Your task to perform on an android device: toggle translation in the chrome app Image 0: 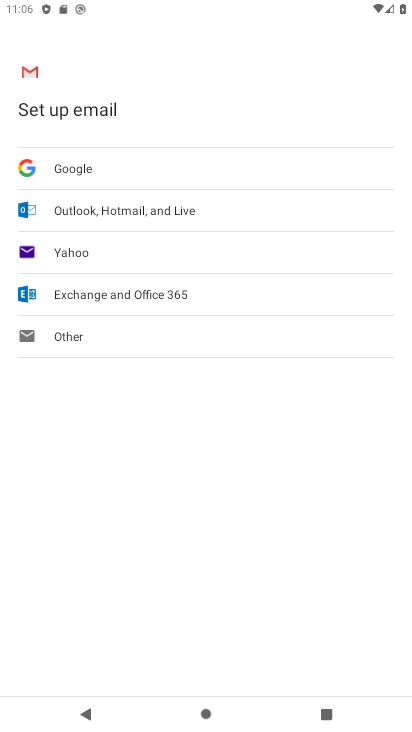
Step 0: press home button
Your task to perform on an android device: toggle translation in the chrome app Image 1: 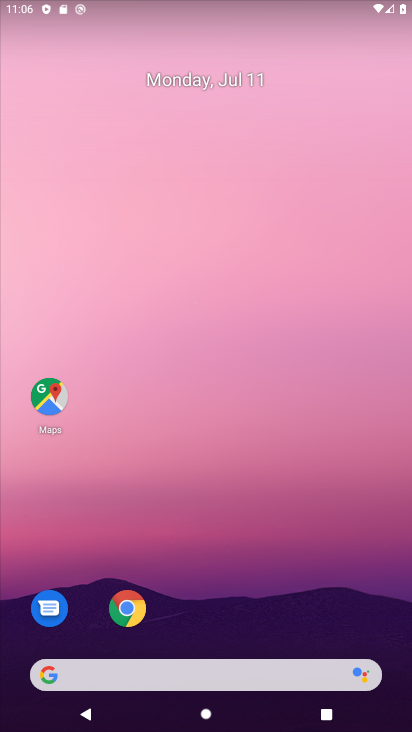
Step 1: click (122, 608)
Your task to perform on an android device: toggle translation in the chrome app Image 2: 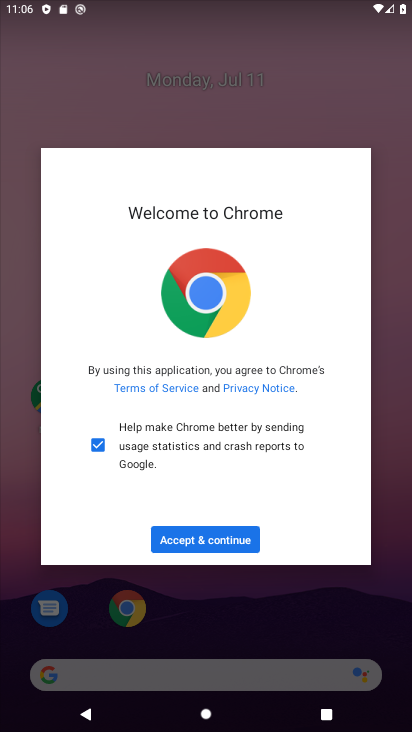
Step 2: click (198, 543)
Your task to perform on an android device: toggle translation in the chrome app Image 3: 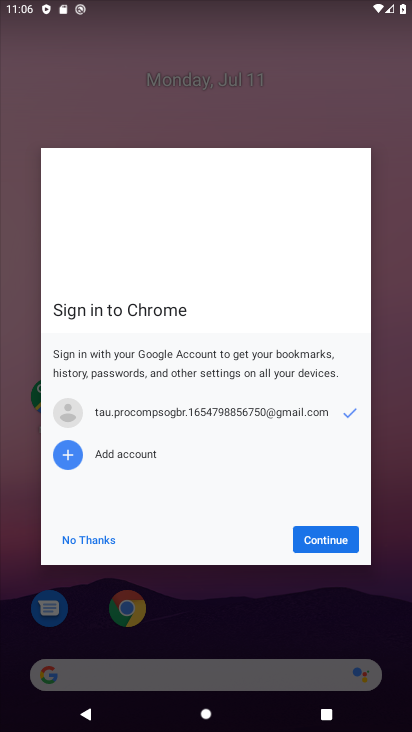
Step 3: click (314, 543)
Your task to perform on an android device: toggle translation in the chrome app Image 4: 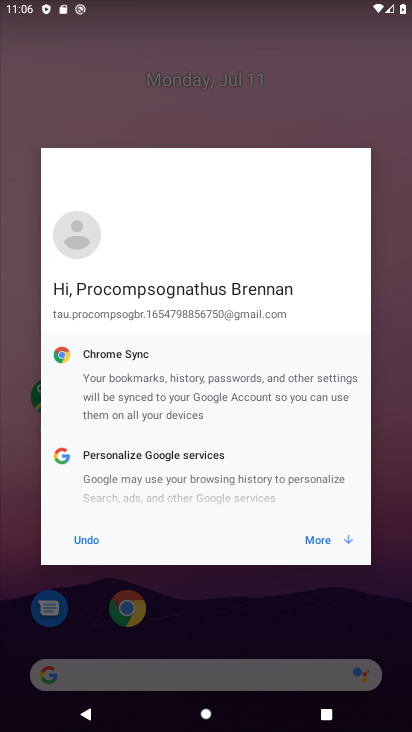
Step 4: click (314, 543)
Your task to perform on an android device: toggle translation in the chrome app Image 5: 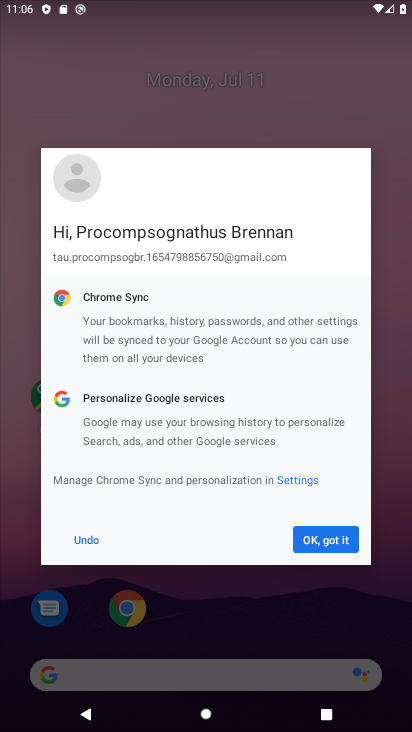
Step 5: click (314, 543)
Your task to perform on an android device: toggle translation in the chrome app Image 6: 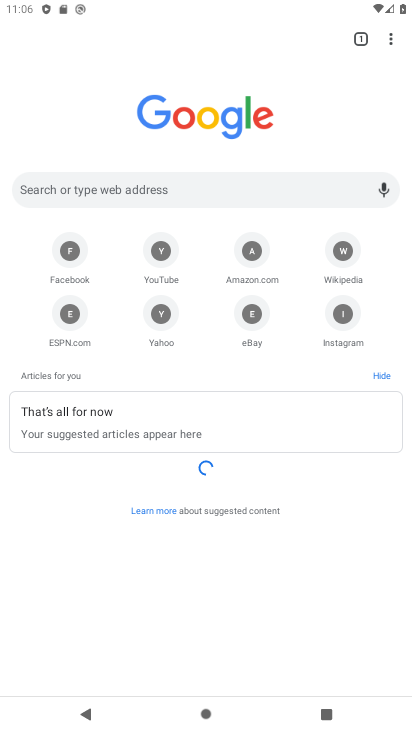
Step 6: click (392, 42)
Your task to perform on an android device: toggle translation in the chrome app Image 7: 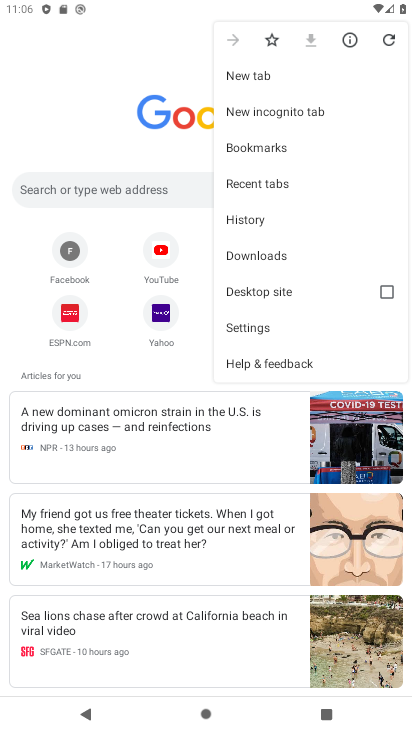
Step 7: click (266, 322)
Your task to perform on an android device: toggle translation in the chrome app Image 8: 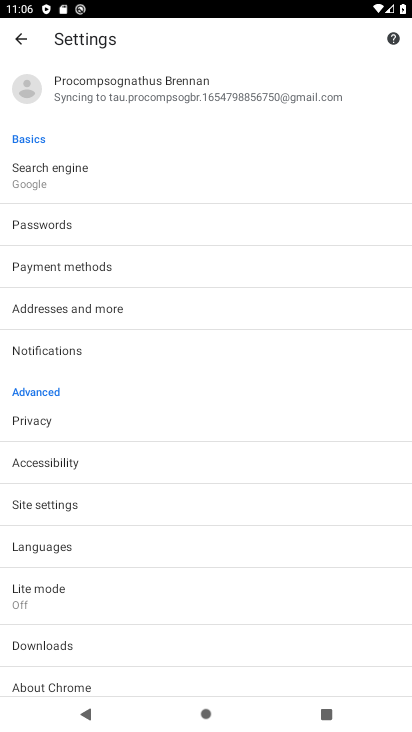
Step 8: click (64, 535)
Your task to perform on an android device: toggle translation in the chrome app Image 9: 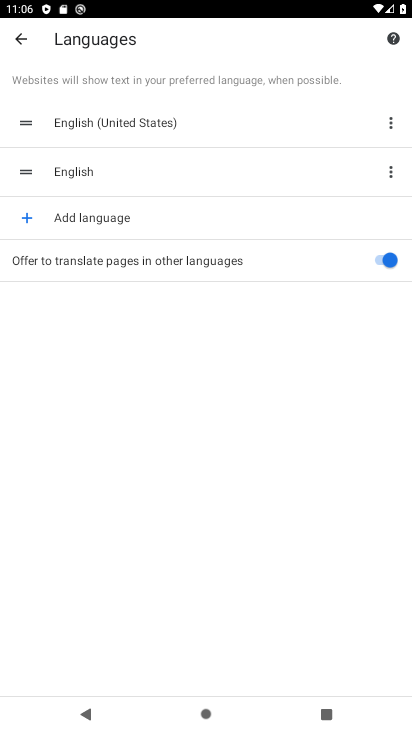
Step 9: click (383, 253)
Your task to perform on an android device: toggle translation in the chrome app Image 10: 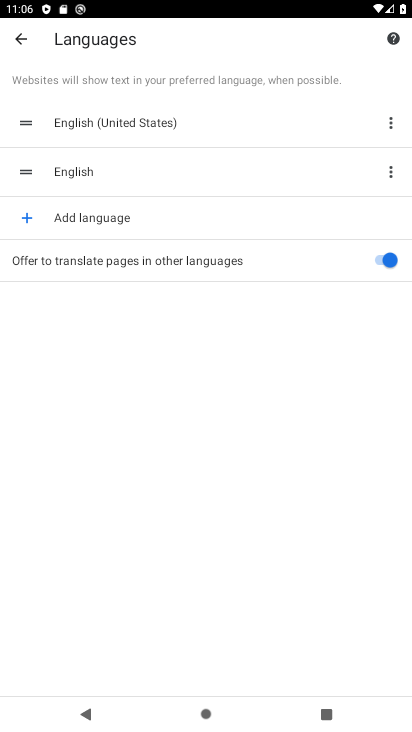
Step 10: click (383, 253)
Your task to perform on an android device: toggle translation in the chrome app Image 11: 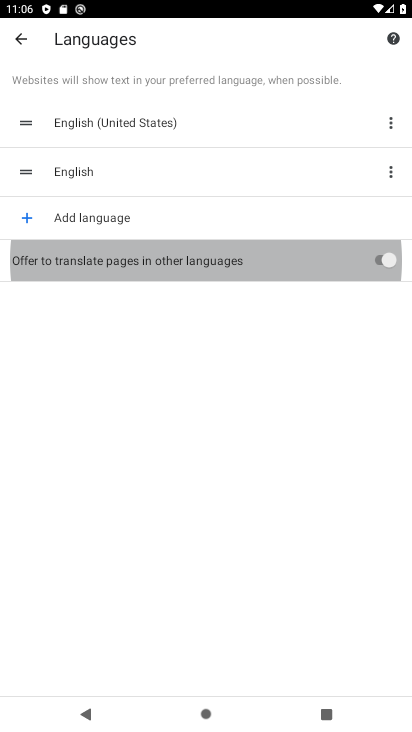
Step 11: click (383, 253)
Your task to perform on an android device: toggle translation in the chrome app Image 12: 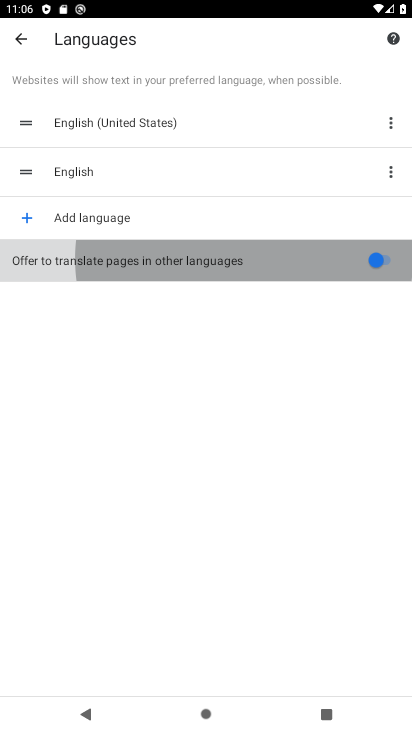
Step 12: click (383, 253)
Your task to perform on an android device: toggle translation in the chrome app Image 13: 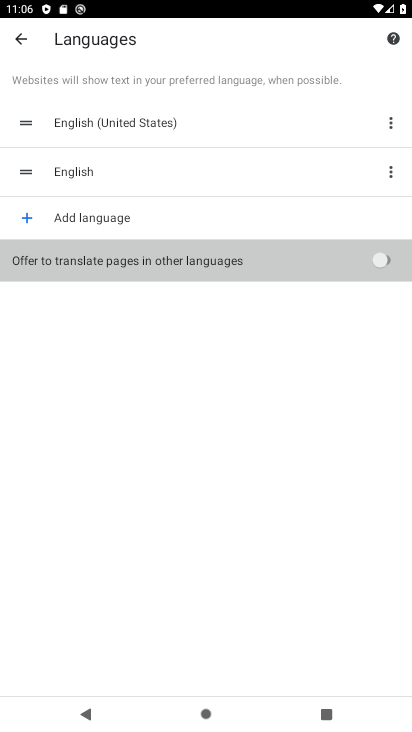
Step 13: click (383, 253)
Your task to perform on an android device: toggle translation in the chrome app Image 14: 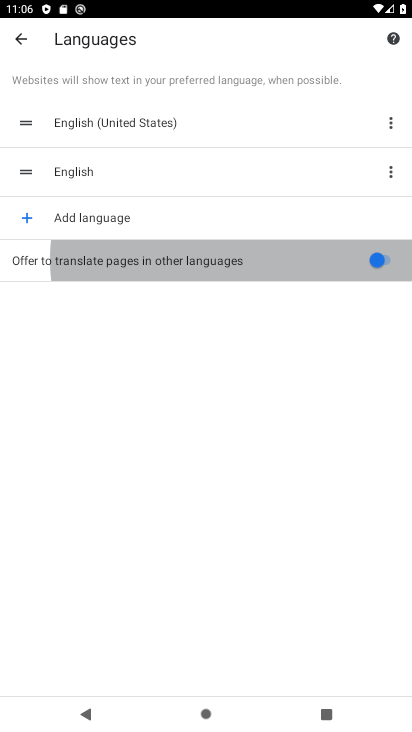
Step 14: click (383, 253)
Your task to perform on an android device: toggle translation in the chrome app Image 15: 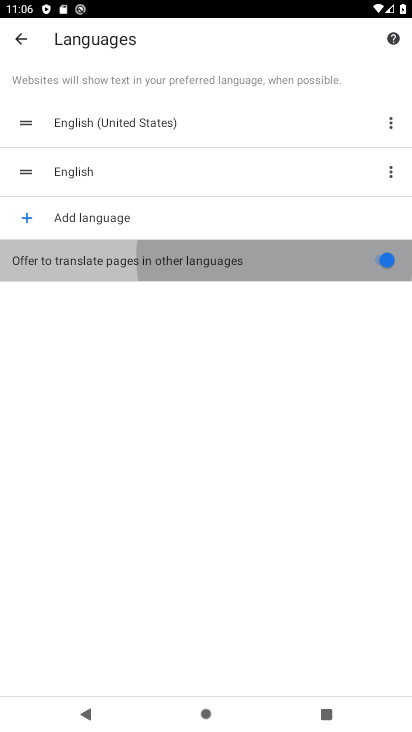
Step 15: click (383, 253)
Your task to perform on an android device: toggle translation in the chrome app Image 16: 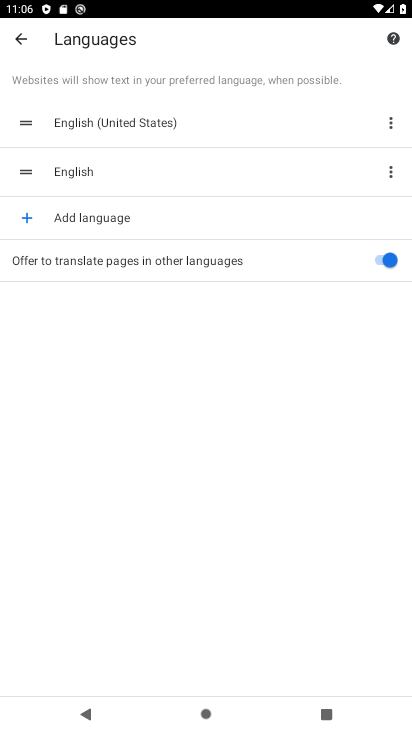
Step 16: task complete